Your task to perform on an android device: Go to accessibility settings Image 0: 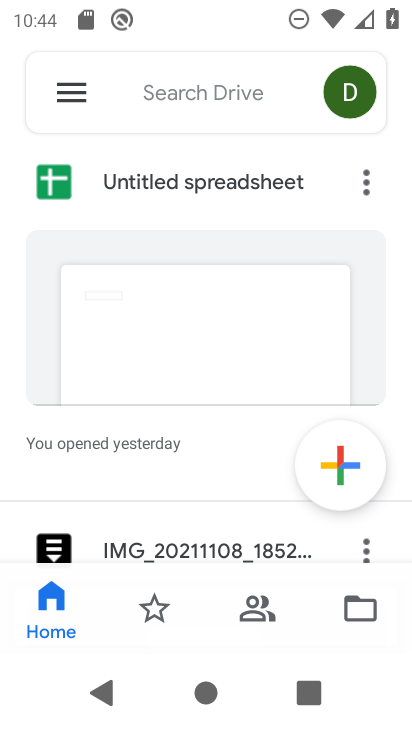
Step 0: press home button
Your task to perform on an android device: Go to accessibility settings Image 1: 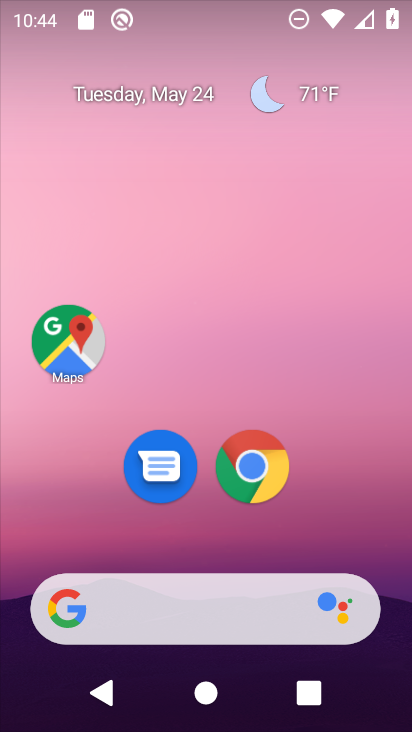
Step 1: drag from (202, 555) to (298, 36)
Your task to perform on an android device: Go to accessibility settings Image 2: 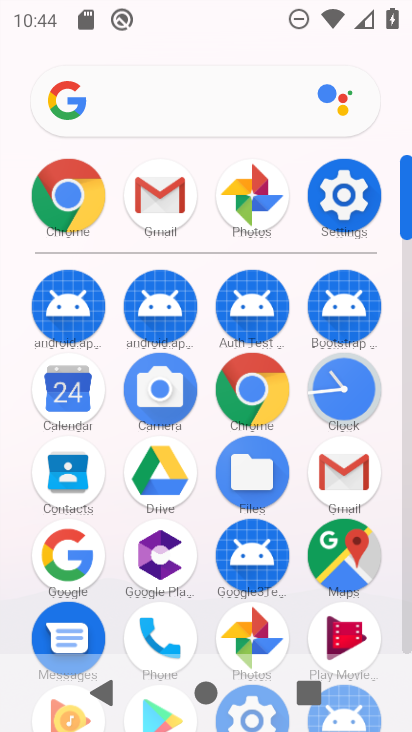
Step 2: click (348, 208)
Your task to perform on an android device: Go to accessibility settings Image 3: 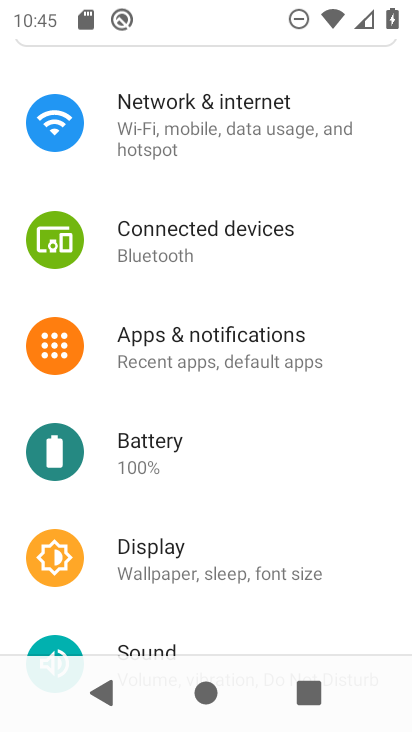
Step 3: drag from (199, 566) to (249, 146)
Your task to perform on an android device: Go to accessibility settings Image 4: 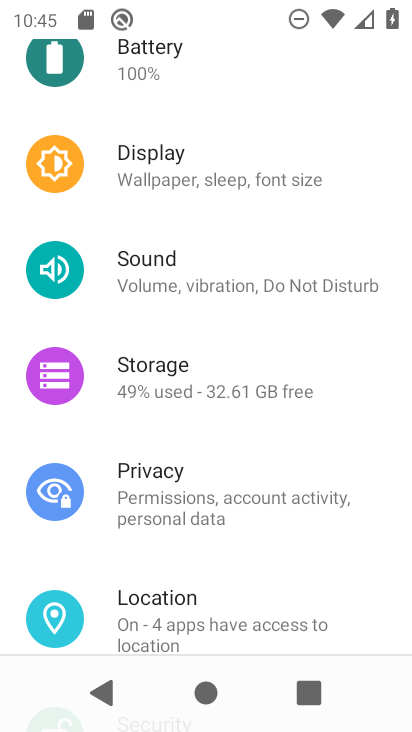
Step 4: drag from (212, 528) to (267, 302)
Your task to perform on an android device: Go to accessibility settings Image 5: 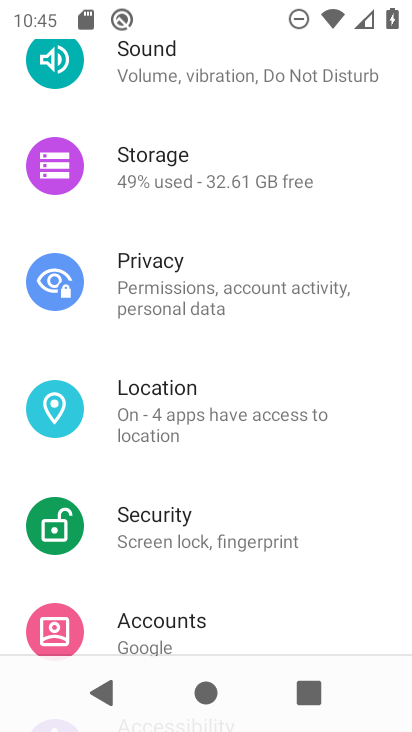
Step 5: drag from (204, 531) to (227, 237)
Your task to perform on an android device: Go to accessibility settings Image 6: 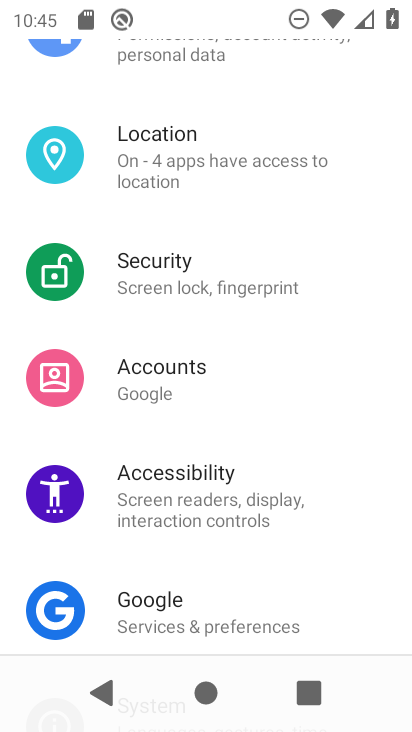
Step 6: click (210, 499)
Your task to perform on an android device: Go to accessibility settings Image 7: 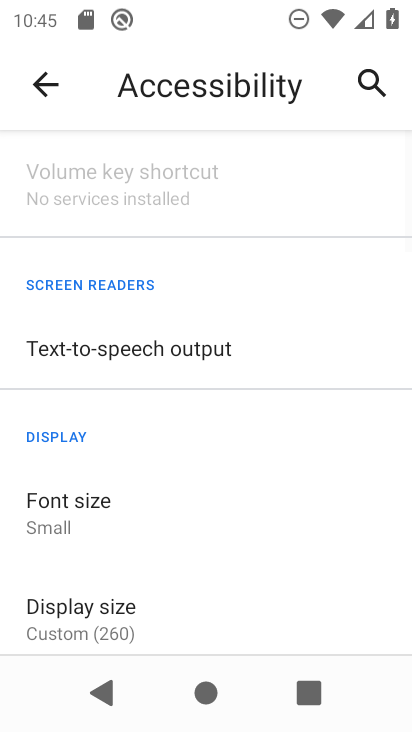
Step 7: task complete